Your task to perform on an android device: Open wifi settings Image 0: 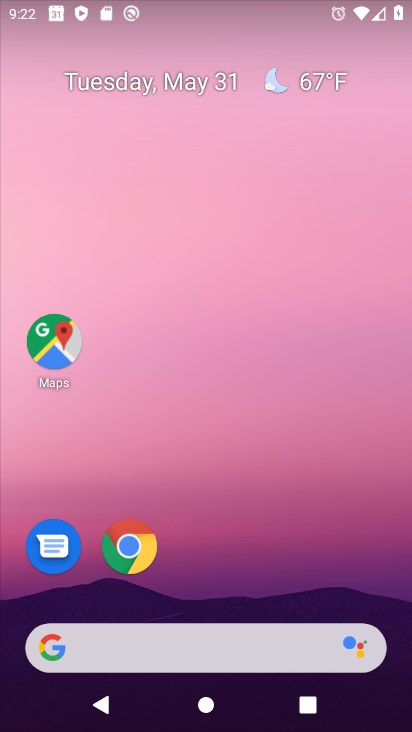
Step 0: drag from (252, 612) to (285, 8)
Your task to perform on an android device: Open wifi settings Image 1: 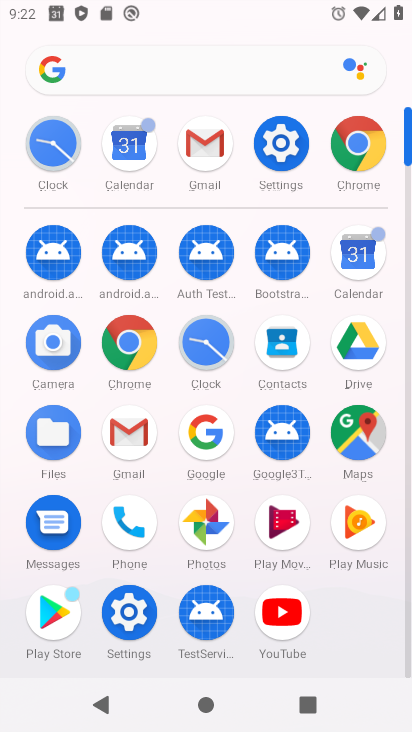
Step 1: click (288, 144)
Your task to perform on an android device: Open wifi settings Image 2: 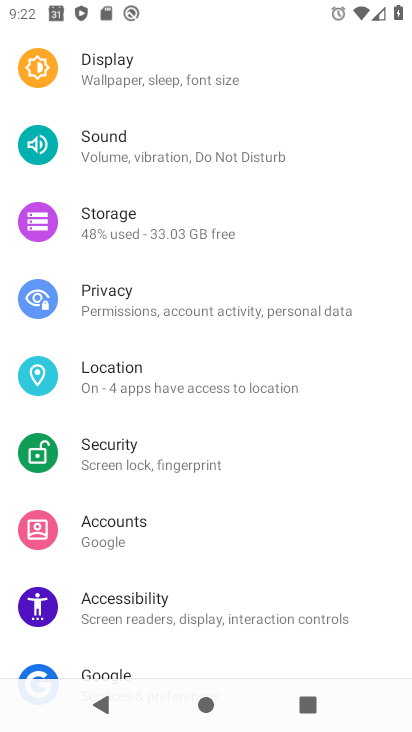
Step 2: drag from (210, 162) to (190, 628)
Your task to perform on an android device: Open wifi settings Image 3: 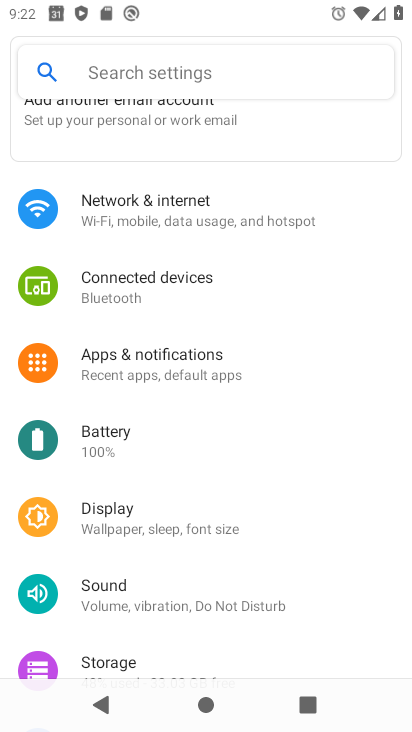
Step 3: click (167, 215)
Your task to perform on an android device: Open wifi settings Image 4: 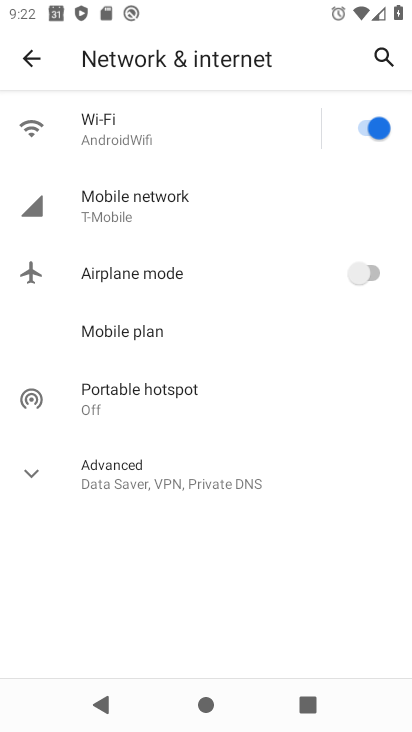
Step 4: click (148, 129)
Your task to perform on an android device: Open wifi settings Image 5: 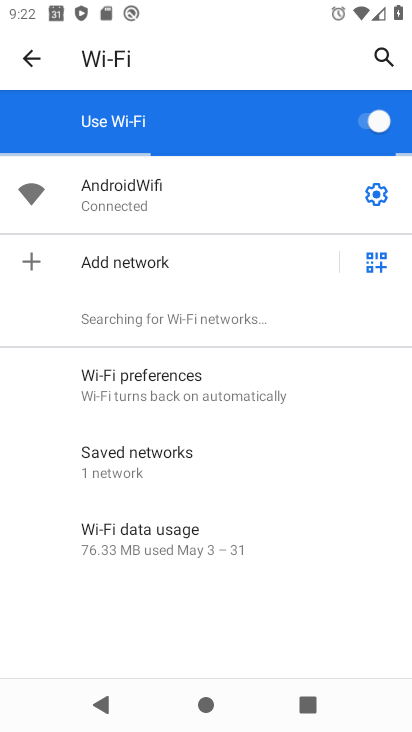
Step 5: task complete